Your task to perform on an android device: stop showing notifications on the lock screen Image 0: 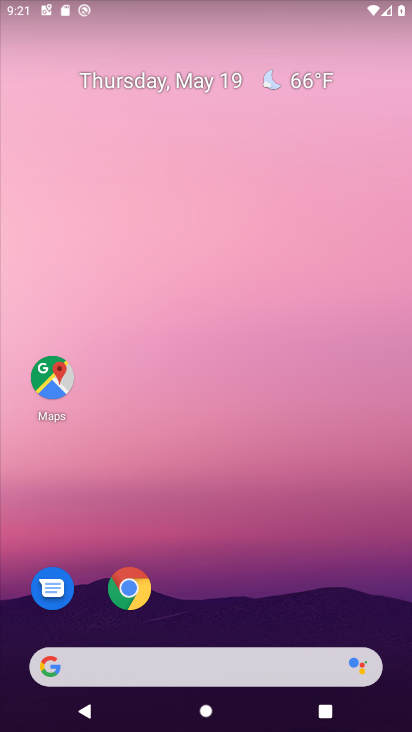
Step 0: drag from (355, 590) to (327, 196)
Your task to perform on an android device: stop showing notifications on the lock screen Image 1: 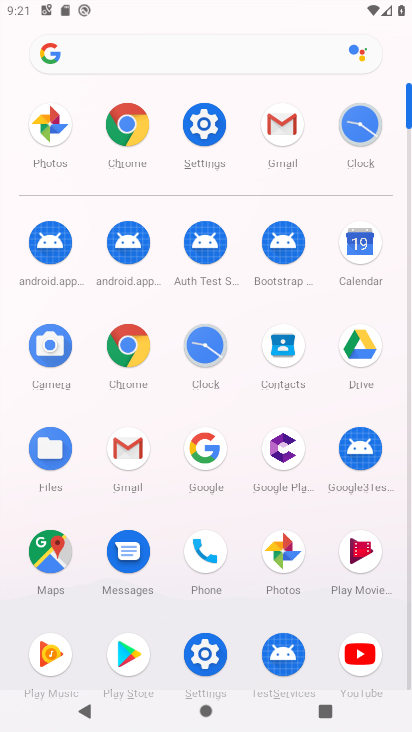
Step 1: click (213, 662)
Your task to perform on an android device: stop showing notifications on the lock screen Image 2: 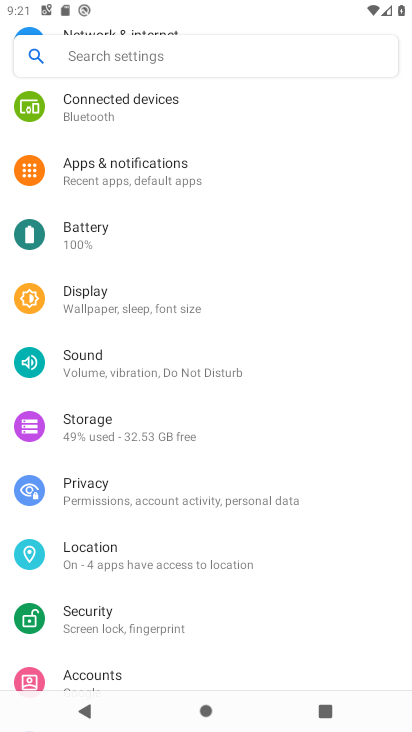
Step 2: drag from (335, 545) to (361, 360)
Your task to perform on an android device: stop showing notifications on the lock screen Image 3: 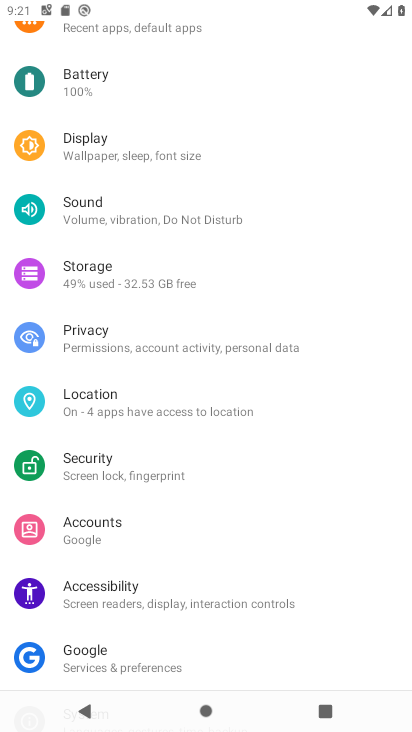
Step 3: drag from (353, 602) to (352, 403)
Your task to perform on an android device: stop showing notifications on the lock screen Image 4: 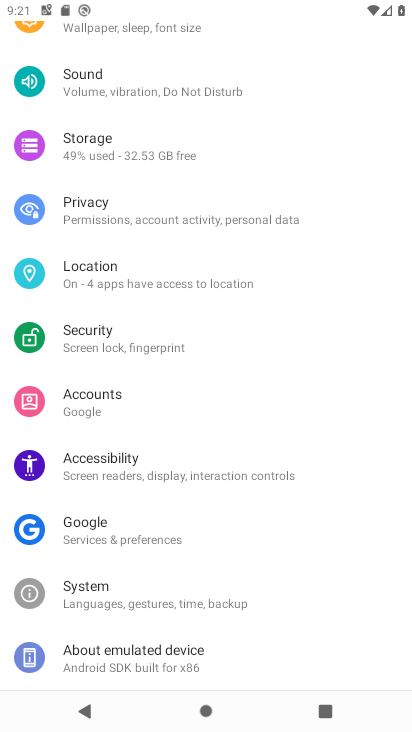
Step 4: drag from (337, 617) to (340, 410)
Your task to perform on an android device: stop showing notifications on the lock screen Image 5: 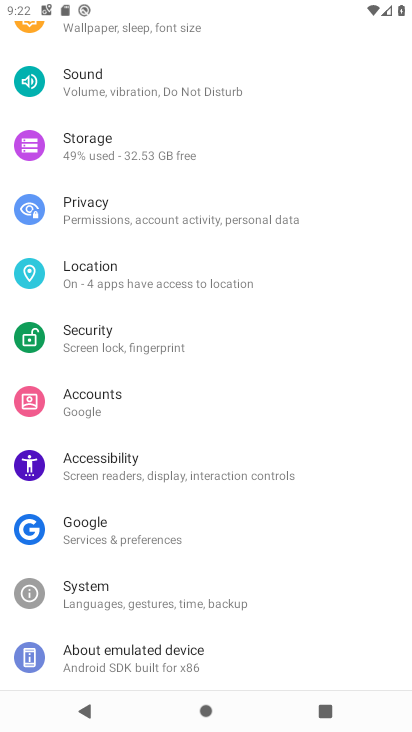
Step 5: drag from (328, 297) to (315, 392)
Your task to perform on an android device: stop showing notifications on the lock screen Image 6: 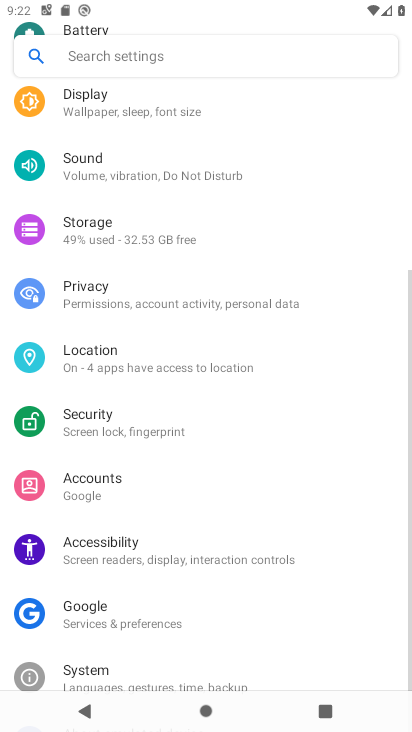
Step 6: drag from (329, 281) to (322, 362)
Your task to perform on an android device: stop showing notifications on the lock screen Image 7: 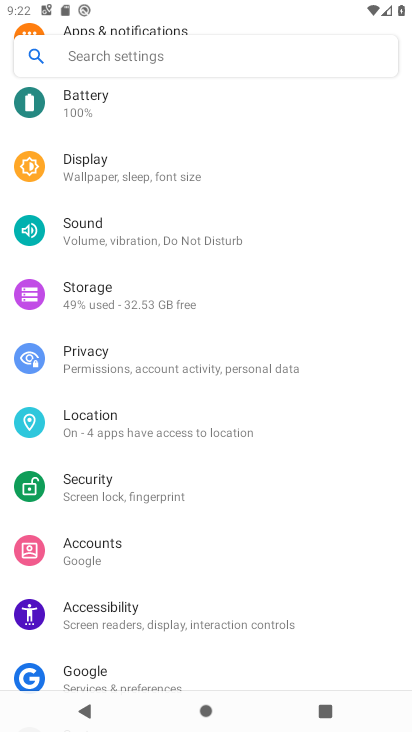
Step 7: drag from (330, 281) to (330, 380)
Your task to perform on an android device: stop showing notifications on the lock screen Image 8: 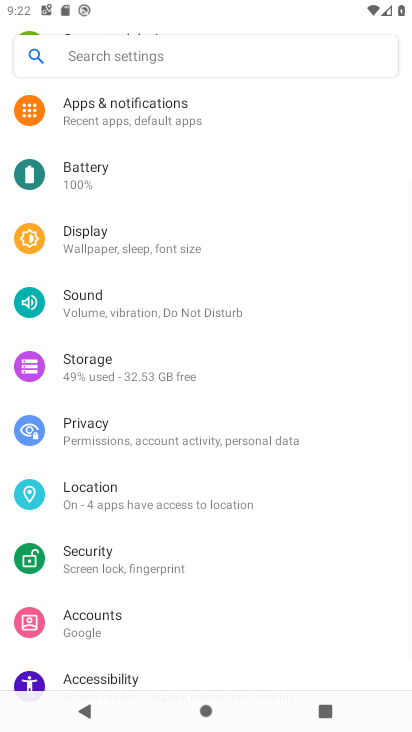
Step 8: drag from (332, 311) to (333, 379)
Your task to perform on an android device: stop showing notifications on the lock screen Image 9: 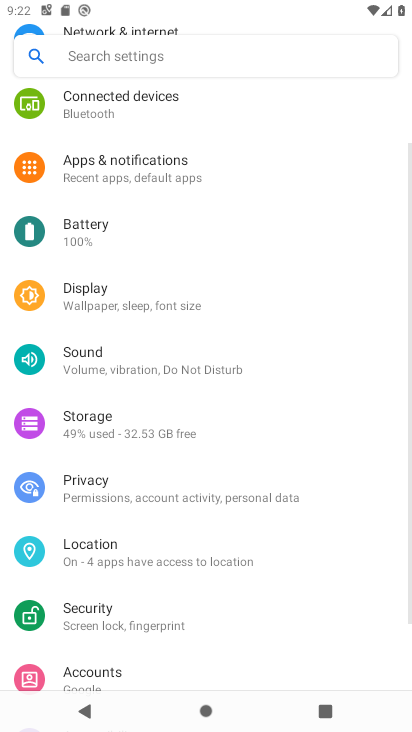
Step 9: drag from (335, 298) to (332, 398)
Your task to perform on an android device: stop showing notifications on the lock screen Image 10: 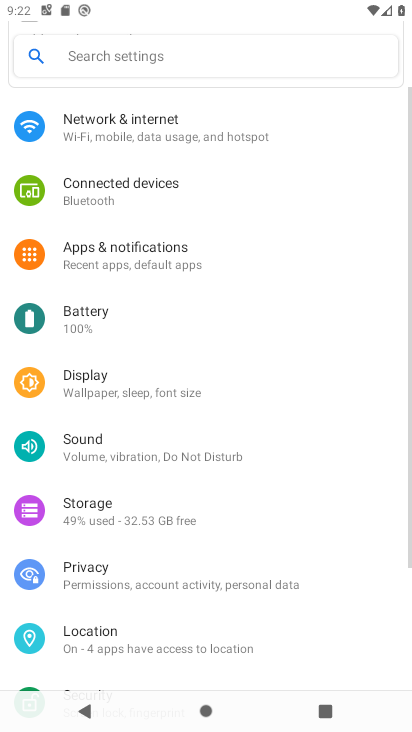
Step 10: drag from (347, 290) to (333, 383)
Your task to perform on an android device: stop showing notifications on the lock screen Image 11: 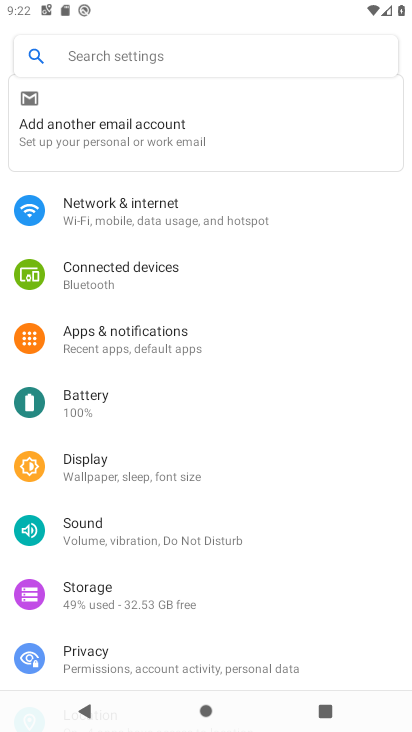
Step 11: drag from (320, 292) to (317, 382)
Your task to perform on an android device: stop showing notifications on the lock screen Image 12: 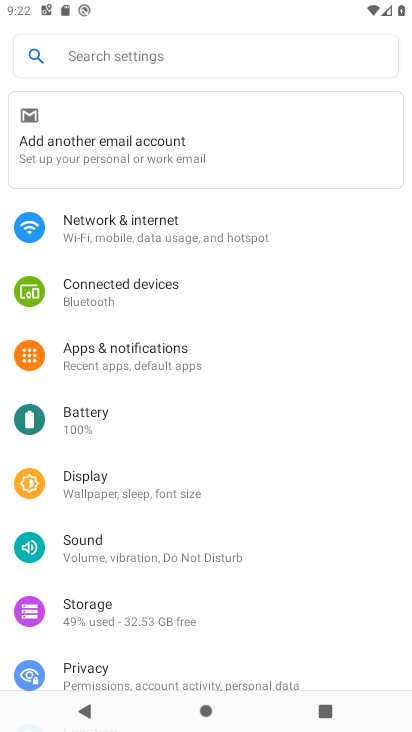
Step 12: drag from (312, 309) to (316, 385)
Your task to perform on an android device: stop showing notifications on the lock screen Image 13: 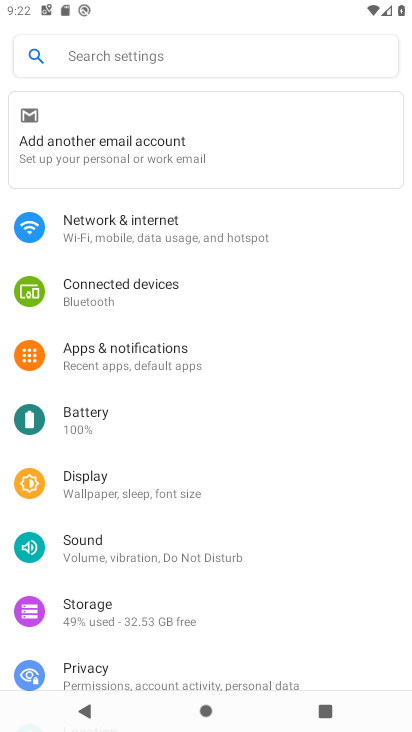
Step 13: drag from (331, 279) to (330, 407)
Your task to perform on an android device: stop showing notifications on the lock screen Image 14: 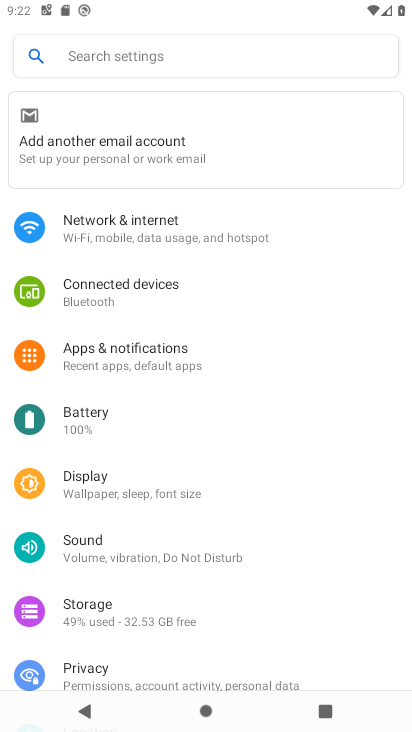
Step 14: click (178, 352)
Your task to perform on an android device: stop showing notifications on the lock screen Image 15: 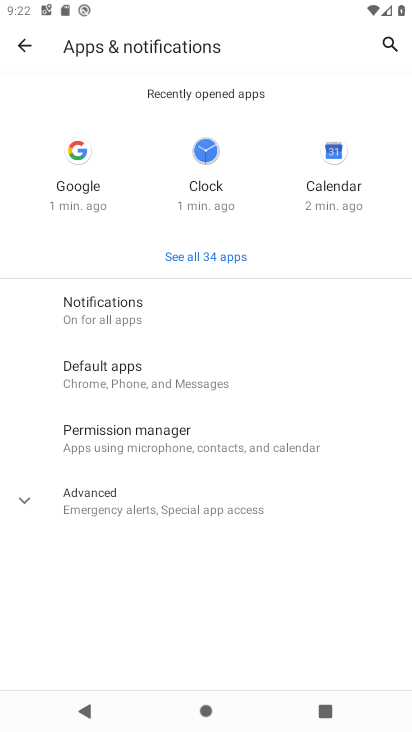
Step 15: click (183, 309)
Your task to perform on an android device: stop showing notifications on the lock screen Image 16: 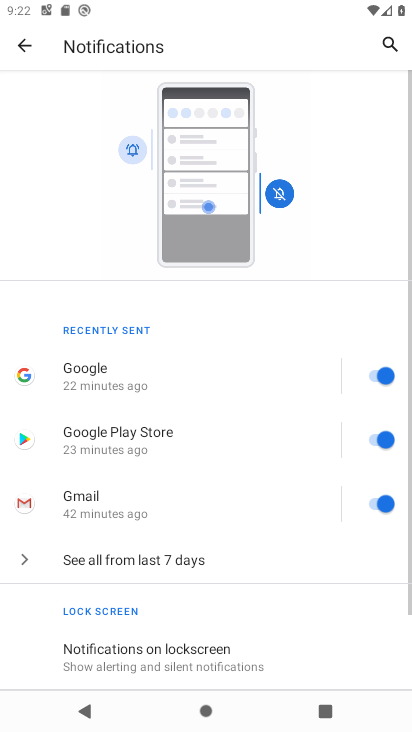
Step 16: drag from (265, 549) to (274, 446)
Your task to perform on an android device: stop showing notifications on the lock screen Image 17: 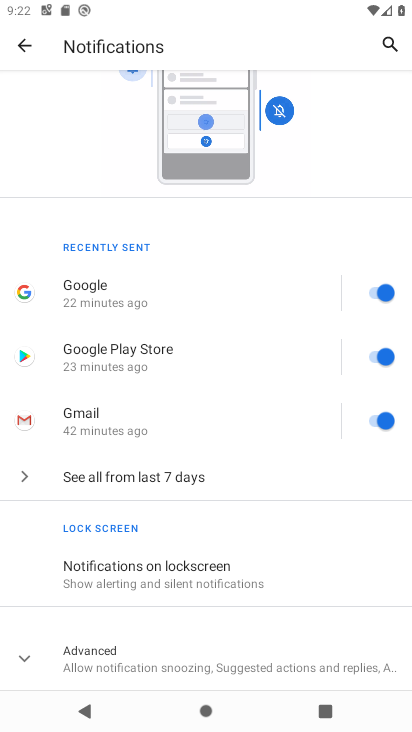
Step 17: drag from (279, 545) to (270, 473)
Your task to perform on an android device: stop showing notifications on the lock screen Image 18: 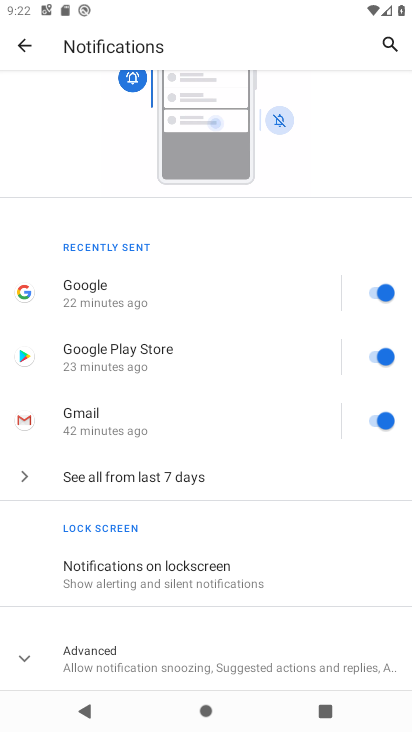
Step 18: drag from (263, 562) to (273, 456)
Your task to perform on an android device: stop showing notifications on the lock screen Image 19: 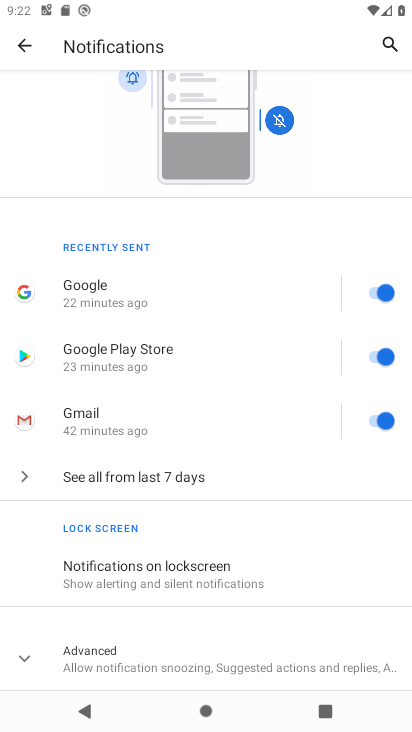
Step 19: click (221, 578)
Your task to perform on an android device: stop showing notifications on the lock screen Image 20: 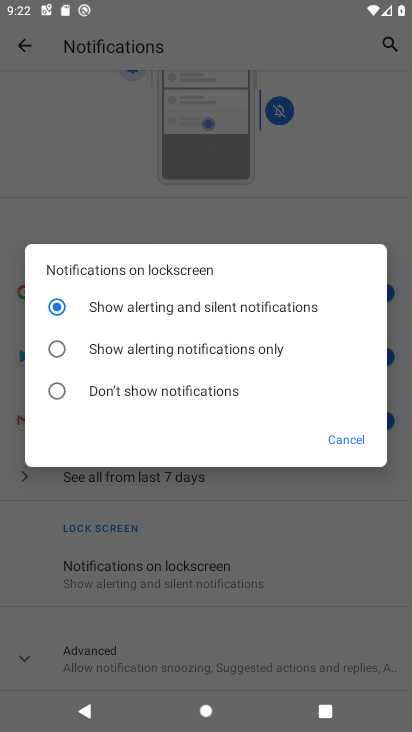
Step 20: click (144, 384)
Your task to perform on an android device: stop showing notifications on the lock screen Image 21: 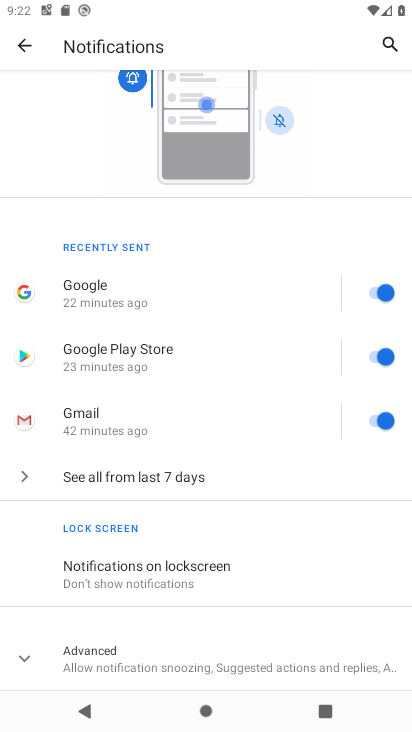
Step 21: task complete